Your task to perform on an android device: Add "macbook" to the cart on bestbuy Image 0: 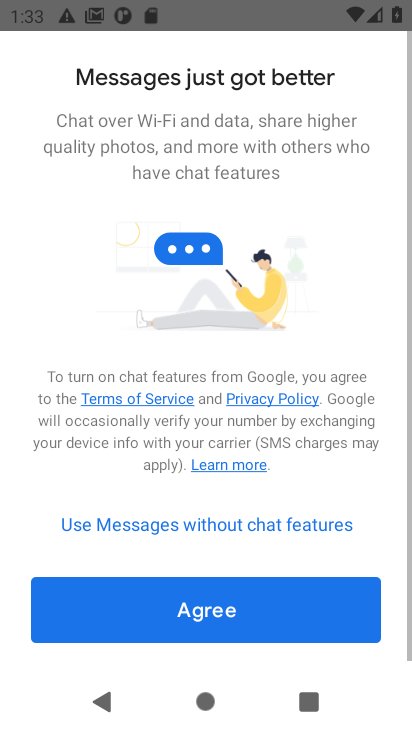
Step 0: press home button
Your task to perform on an android device: Add "macbook" to the cart on bestbuy Image 1: 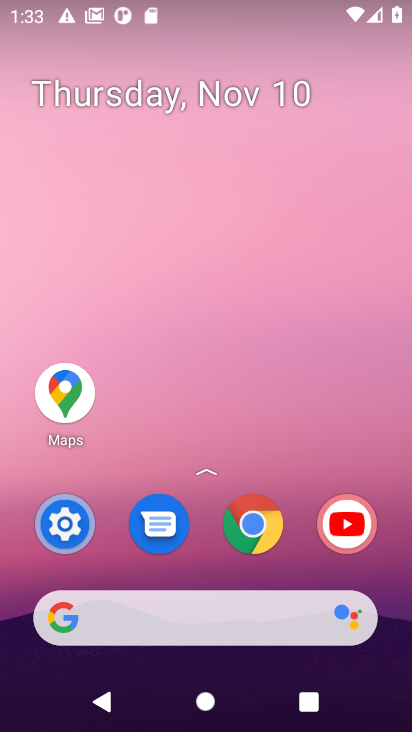
Step 1: click (256, 529)
Your task to perform on an android device: Add "macbook" to the cart on bestbuy Image 2: 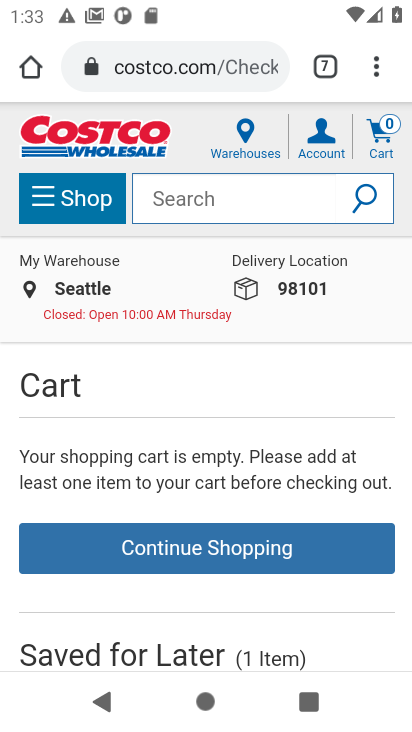
Step 2: click (326, 69)
Your task to perform on an android device: Add "macbook" to the cart on bestbuy Image 3: 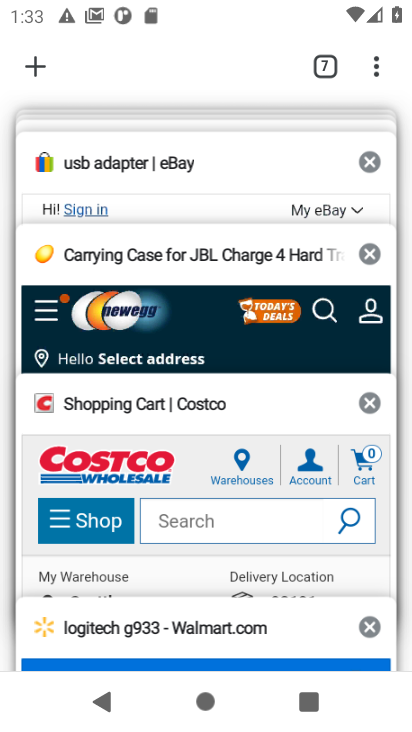
Step 3: drag from (150, 214) to (144, 253)
Your task to perform on an android device: Add "macbook" to the cart on bestbuy Image 4: 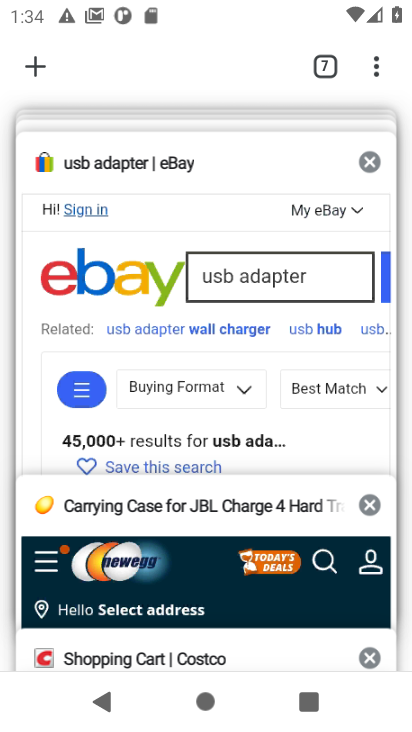
Step 4: drag from (194, 151) to (224, 382)
Your task to perform on an android device: Add "macbook" to the cart on bestbuy Image 5: 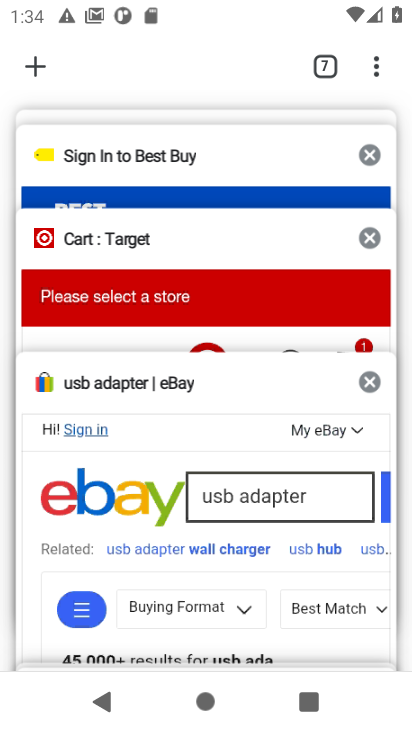
Step 5: click (276, 169)
Your task to perform on an android device: Add "macbook" to the cart on bestbuy Image 6: 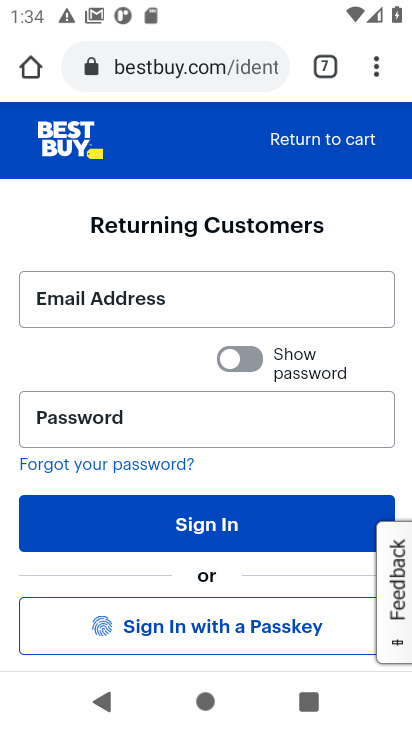
Step 6: click (323, 141)
Your task to perform on an android device: Add "macbook" to the cart on bestbuy Image 7: 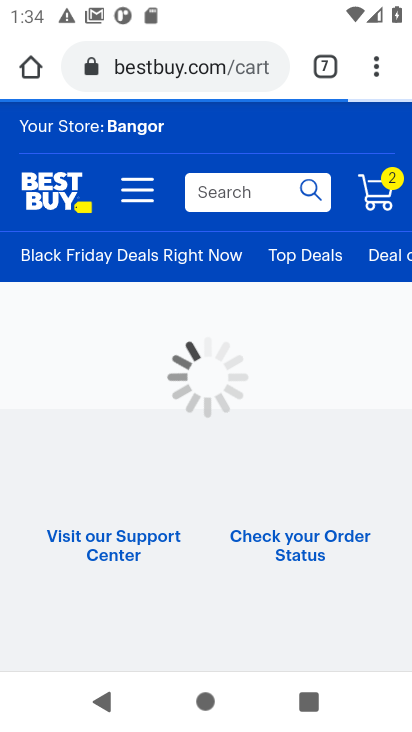
Step 7: click (256, 196)
Your task to perform on an android device: Add "macbook" to the cart on bestbuy Image 8: 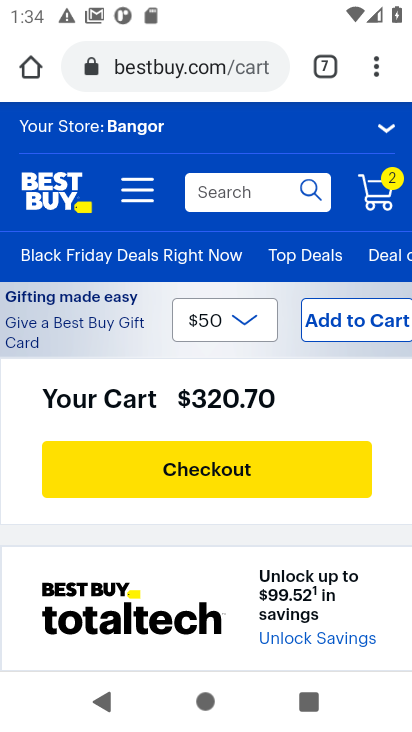
Step 8: type "macbook"
Your task to perform on an android device: Add "macbook" to the cart on bestbuy Image 9: 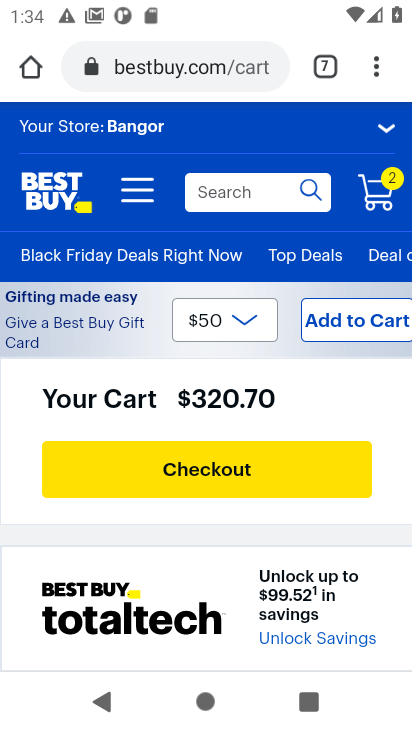
Step 9: click (250, 180)
Your task to perform on an android device: Add "macbook" to the cart on bestbuy Image 10: 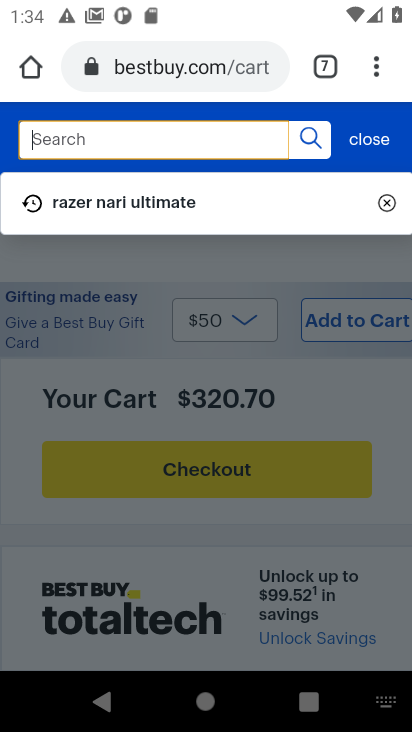
Step 10: type "macbook"
Your task to perform on an android device: Add "macbook" to the cart on bestbuy Image 11: 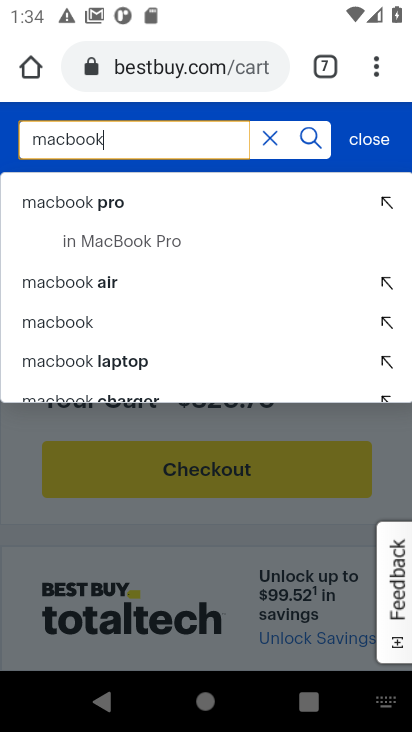
Step 11: click (315, 138)
Your task to perform on an android device: Add "macbook" to the cart on bestbuy Image 12: 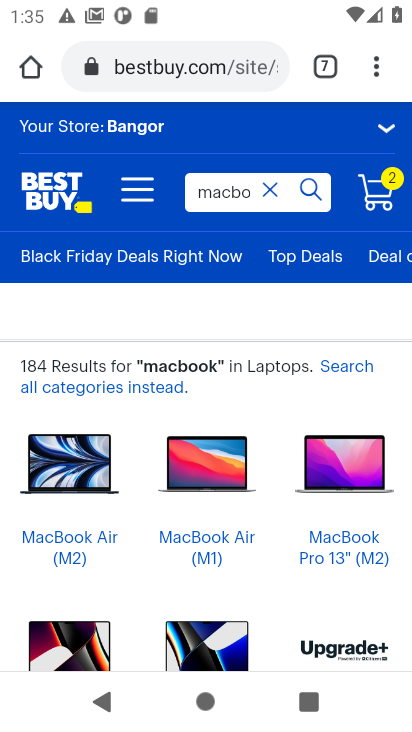
Step 12: drag from (112, 586) to (238, 70)
Your task to perform on an android device: Add "macbook" to the cart on bestbuy Image 13: 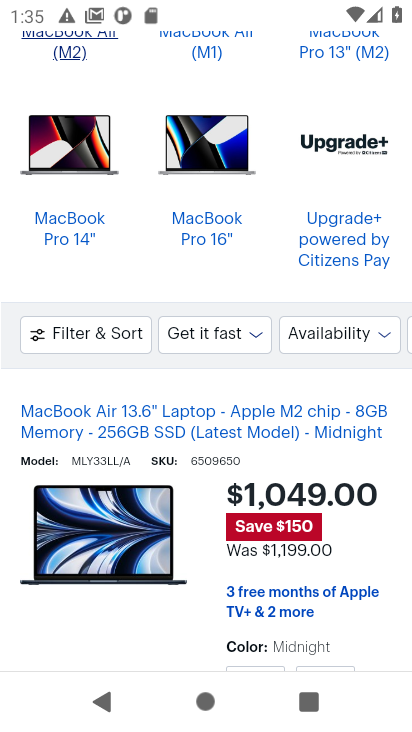
Step 13: drag from (180, 649) to (330, 274)
Your task to perform on an android device: Add "macbook" to the cart on bestbuy Image 14: 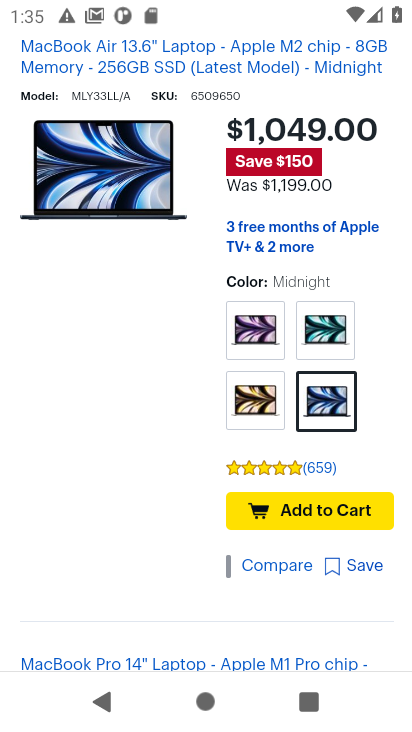
Step 14: click (303, 512)
Your task to perform on an android device: Add "macbook" to the cart on bestbuy Image 15: 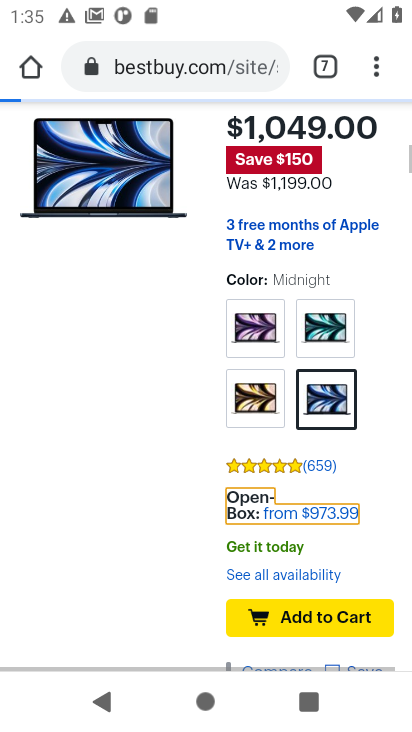
Step 15: click (309, 616)
Your task to perform on an android device: Add "macbook" to the cart on bestbuy Image 16: 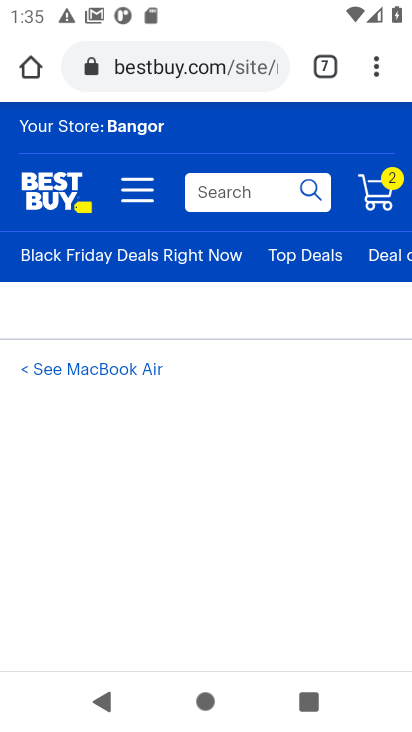
Step 16: task complete